Your task to perform on an android device: turn off data saver in the chrome app Image 0: 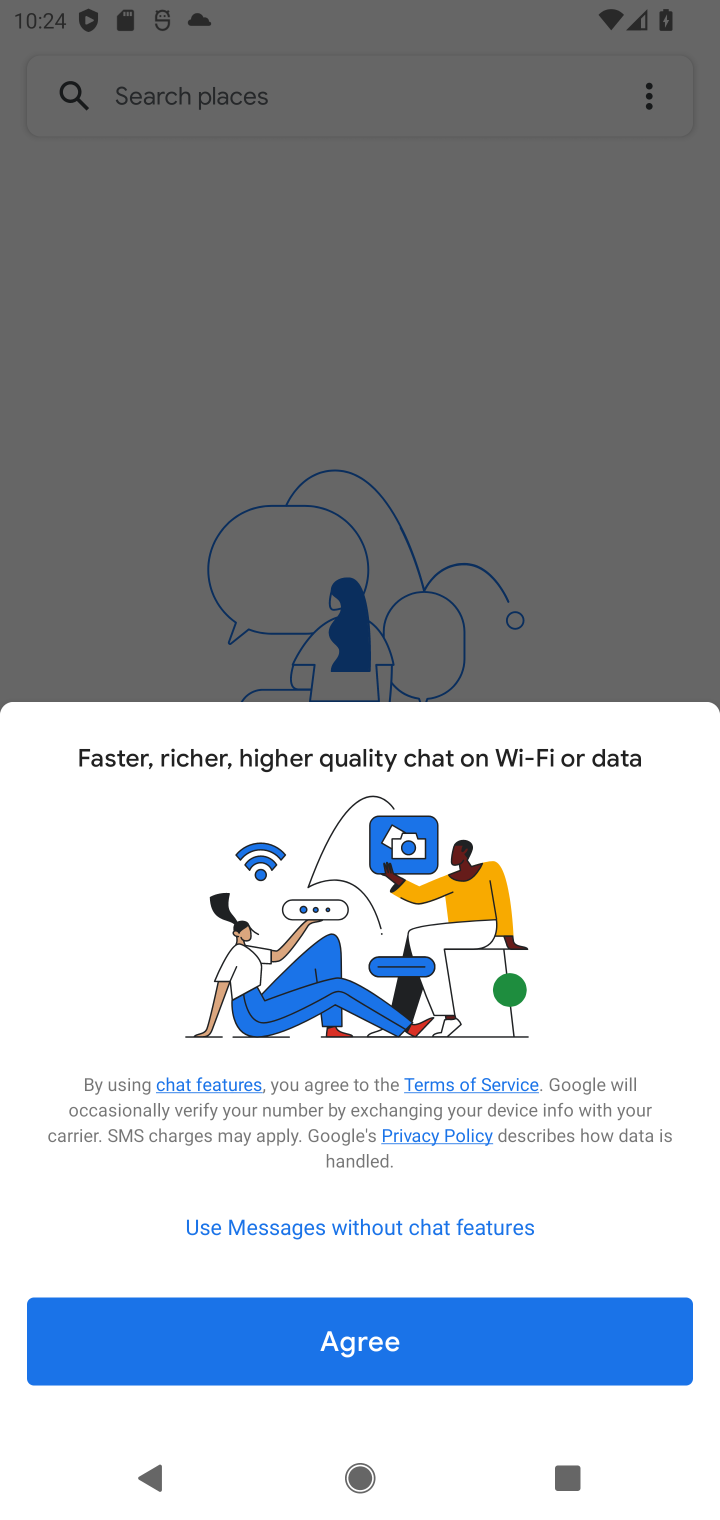
Step 0: press home button
Your task to perform on an android device: turn off data saver in the chrome app Image 1: 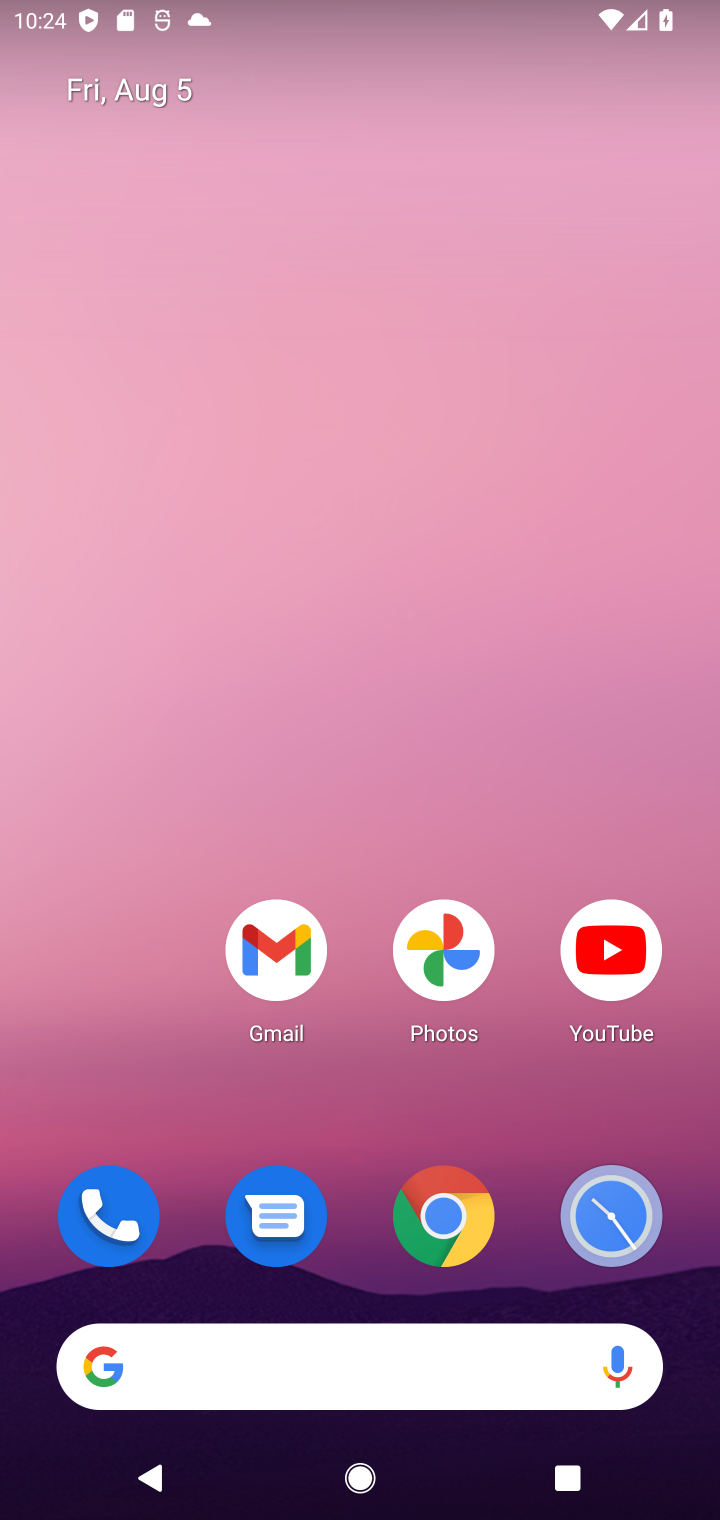
Step 1: drag from (416, 1320) to (306, 9)
Your task to perform on an android device: turn off data saver in the chrome app Image 2: 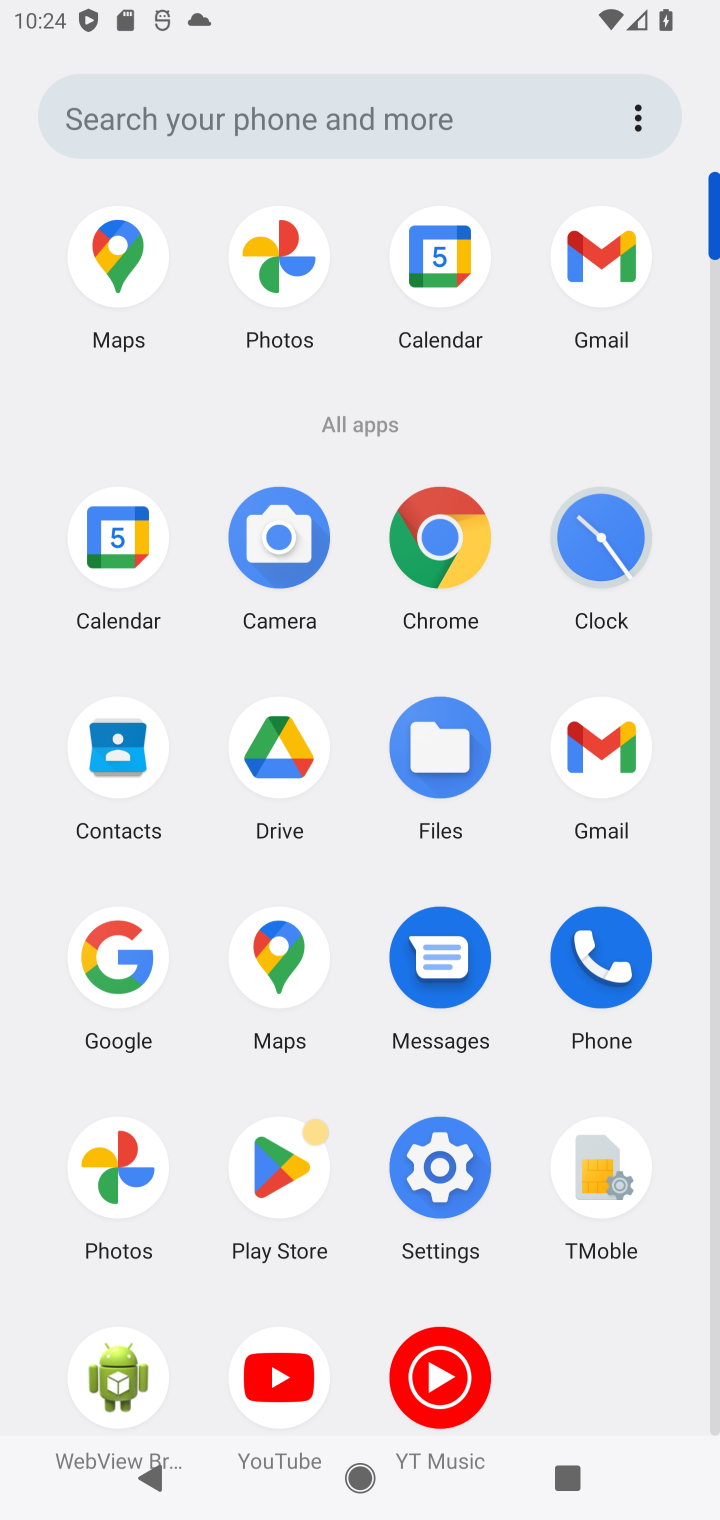
Step 2: click (415, 525)
Your task to perform on an android device: turn off data saver in the chrome app Image 3: 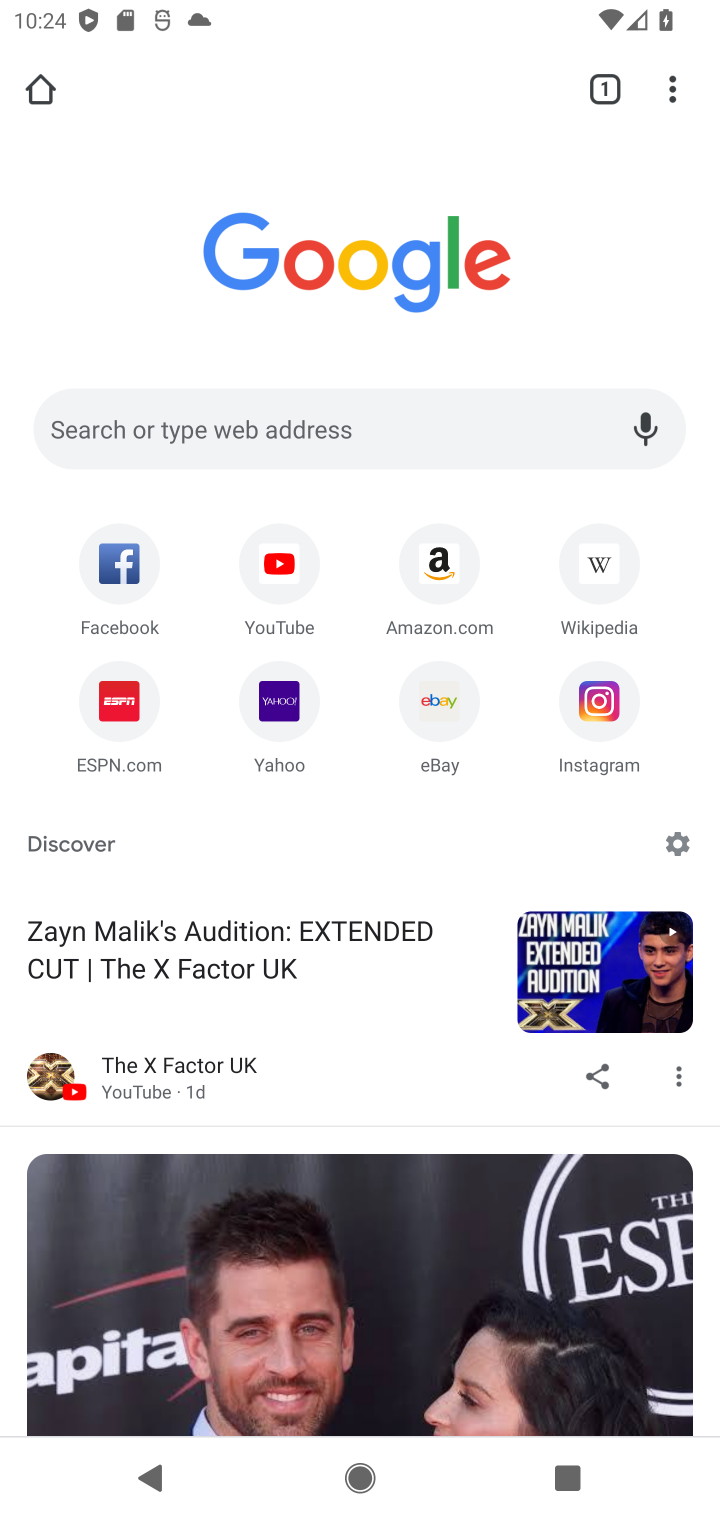
Step 3: click (684, 83)
Your task to perform on an android device: turn off data saver in the chrome app Image 4: 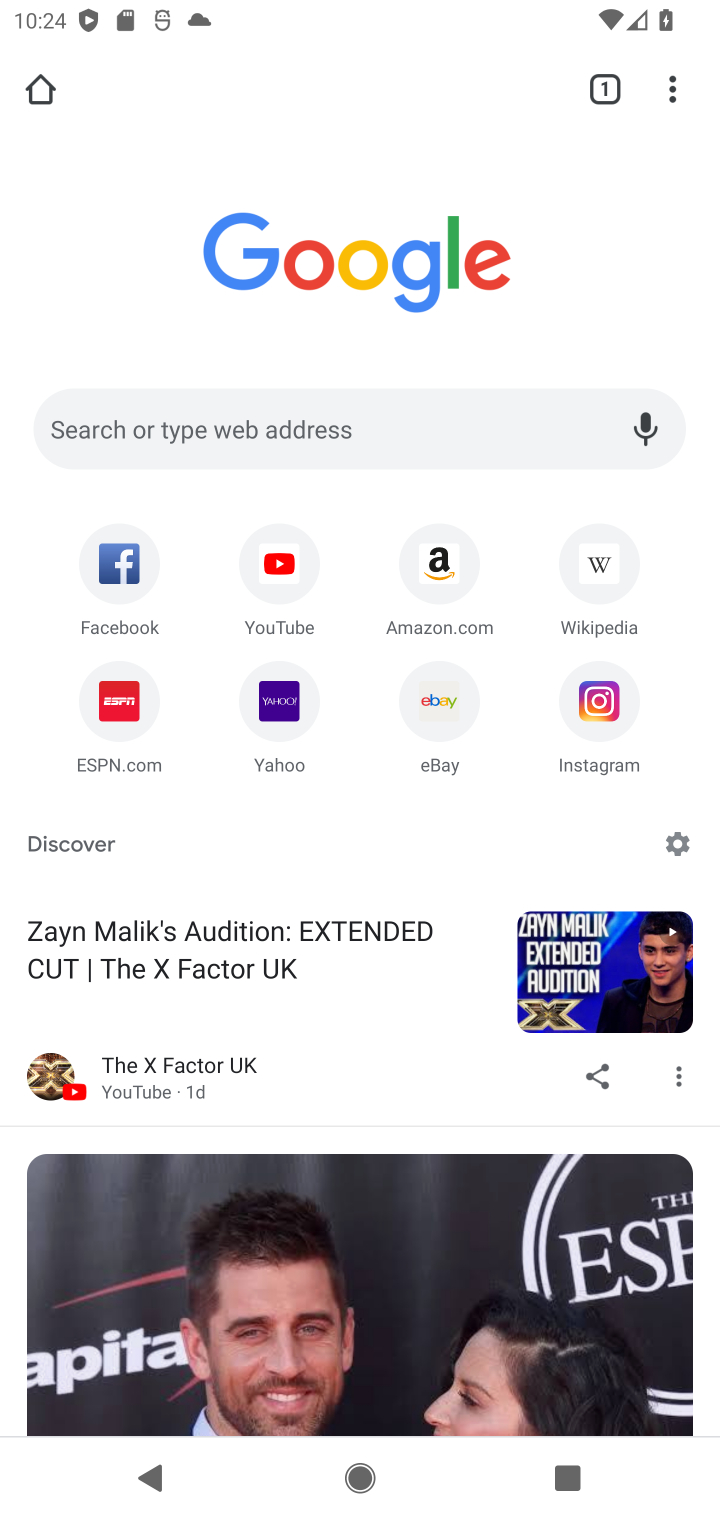
Step 4: drag from (683, 88) to (389, 896)
Your task to perform on an android device: turn off data saver in the chrome app Image 5: 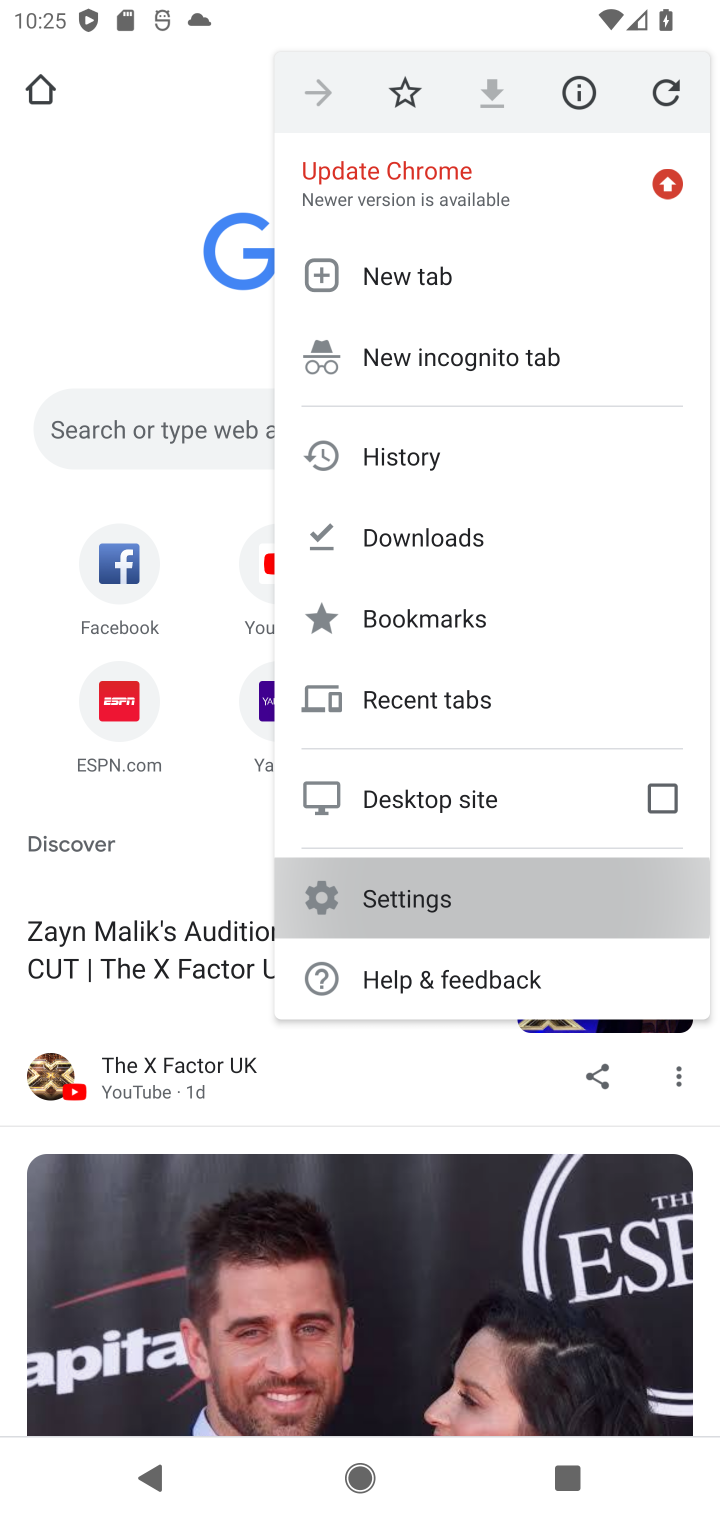
Step 5: click (389, 896)
Your task to perform on an android device: turn off data saver in the chrome app Image 6: 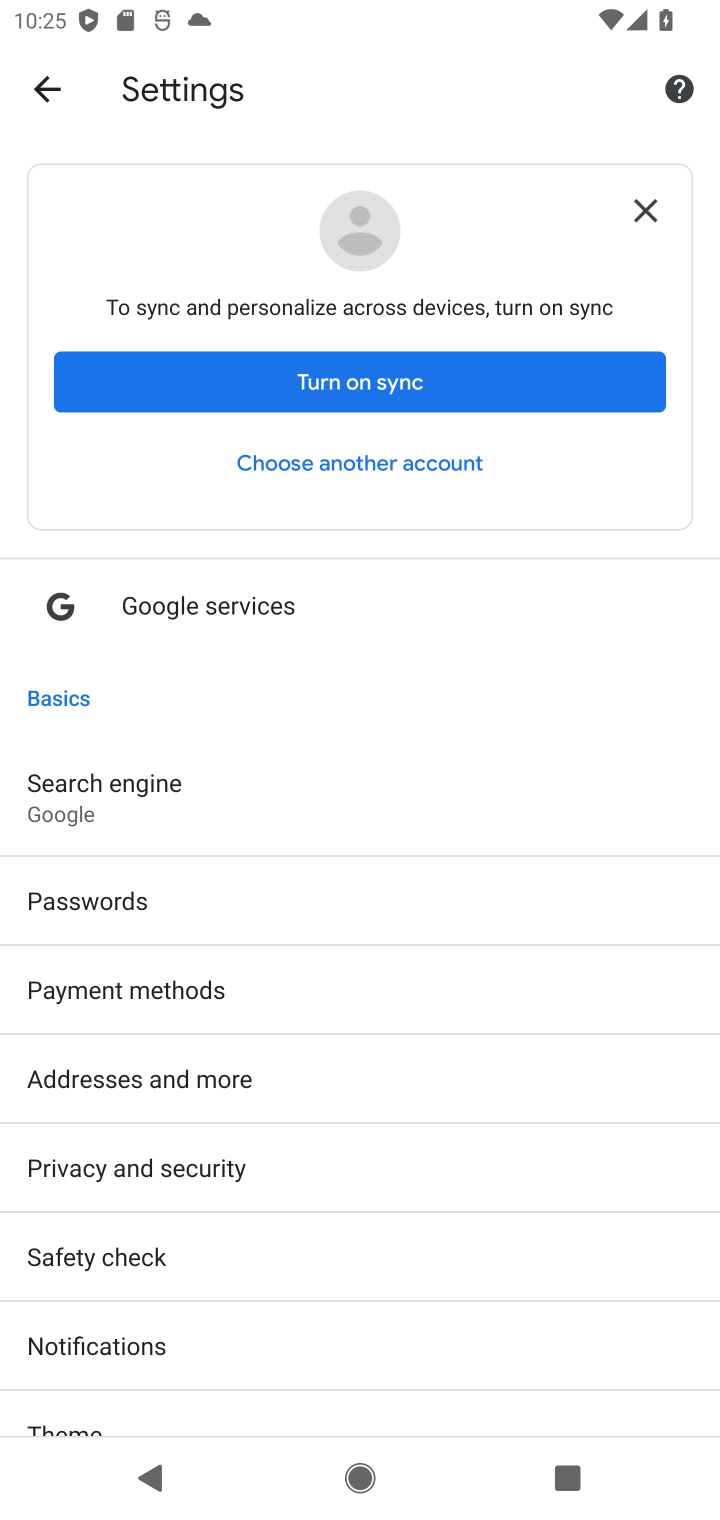
Step 6: drag from (210, 1342) to (215, 224)
Your task to perform on an android device: turn off data saver in the chrome app Image 7: 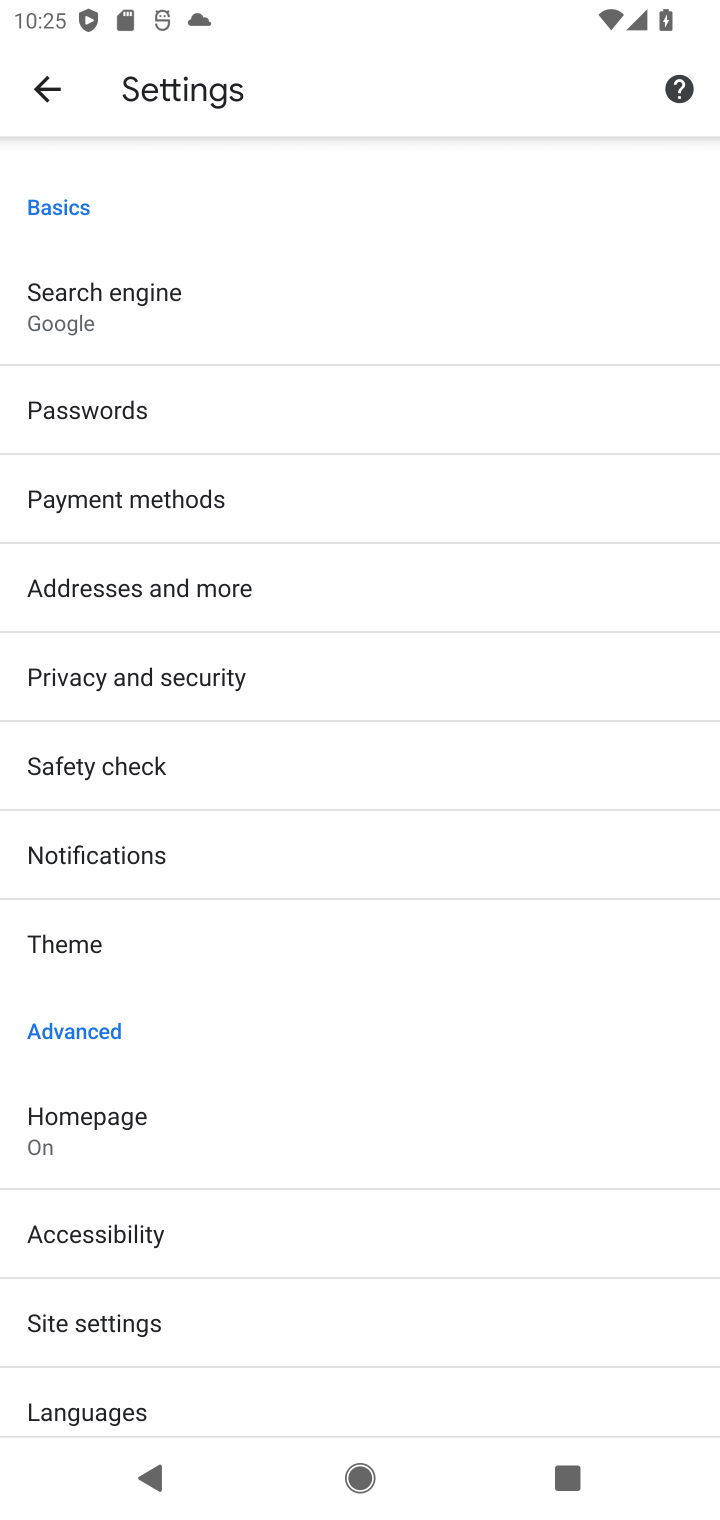
Step 7: drag from (188, 1322) to (267, 643)
Your task to perform on an android device: turn off data saver in the chrome app Image 8: 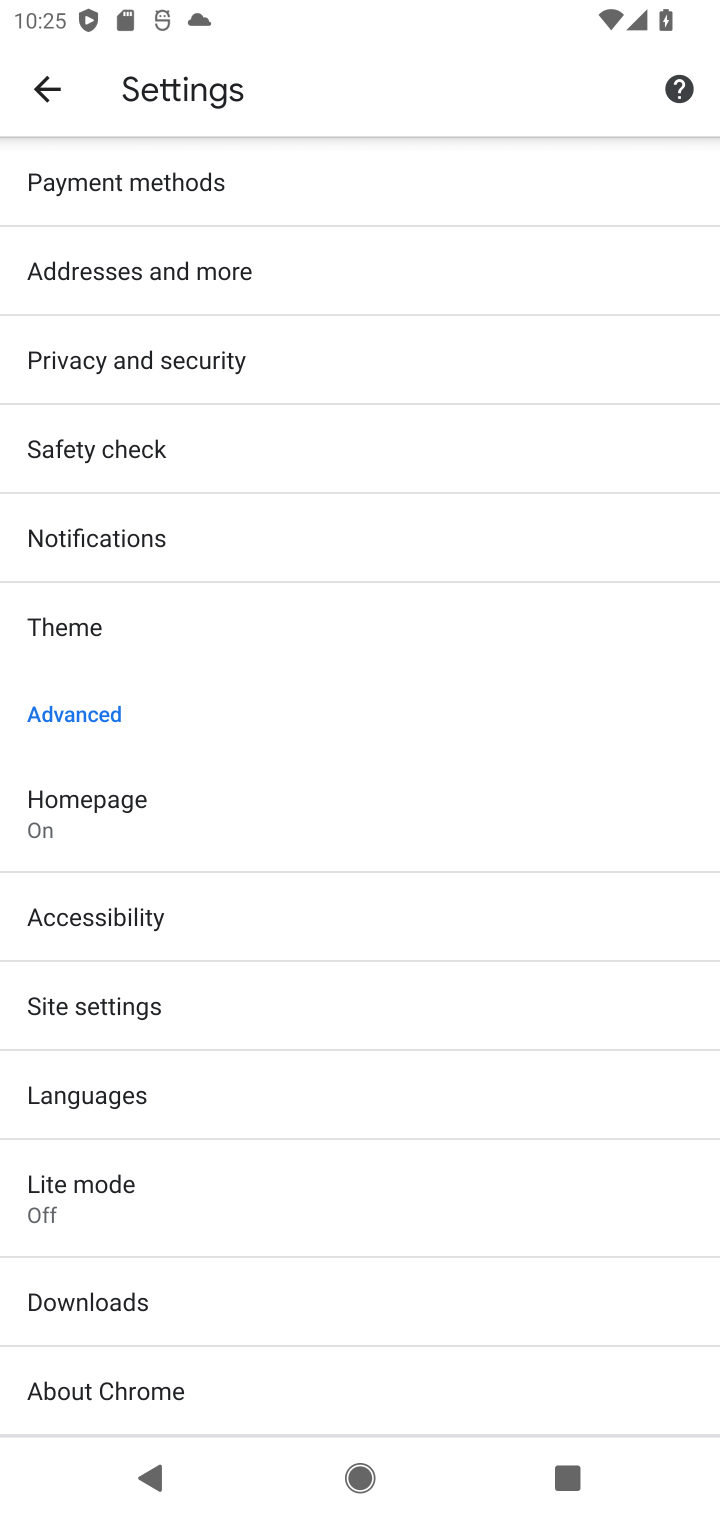
Step 8: click (136, 1204)
Your task to perform on an android device: turn off data saver in the chrome app Image 9: 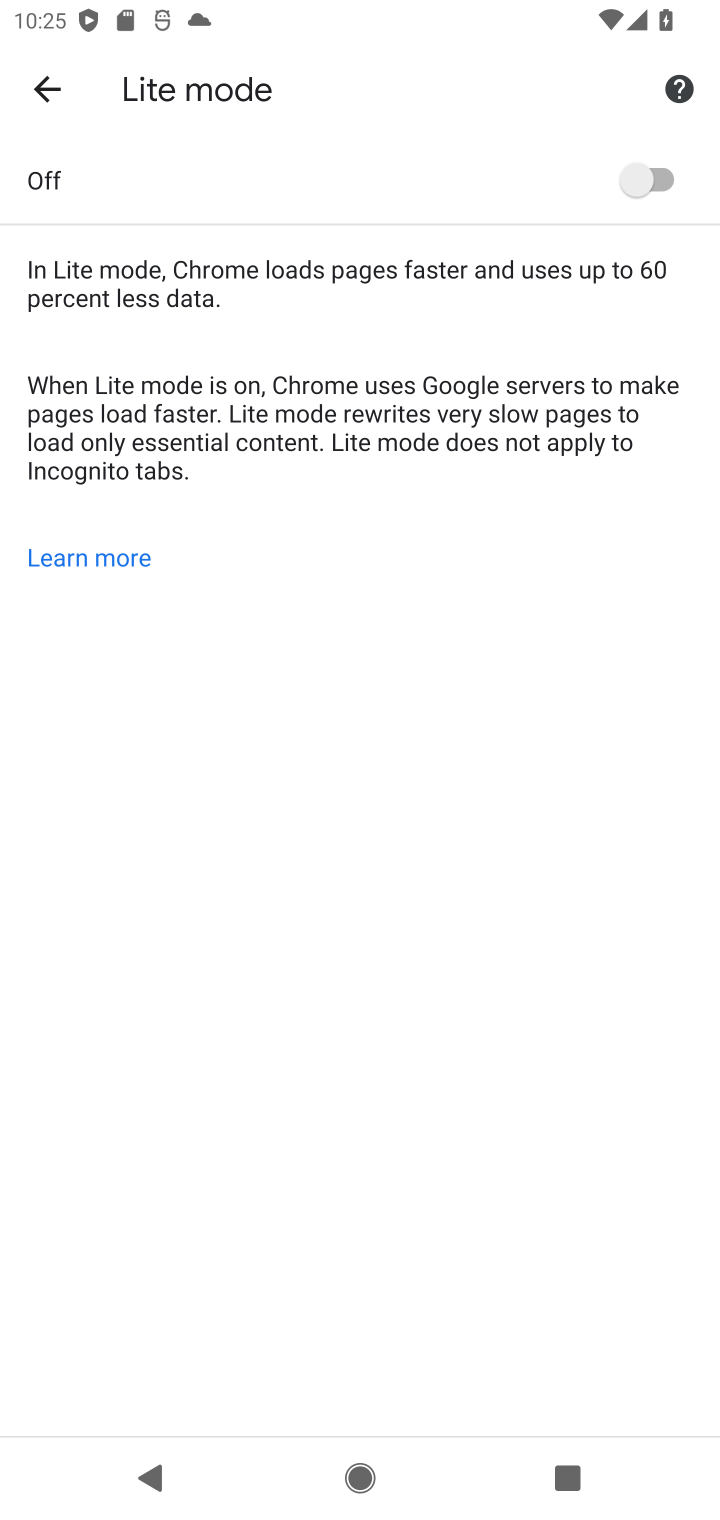
Step 9: task complete